Your task to perform on an android device: turn off airplane mode Image 0: 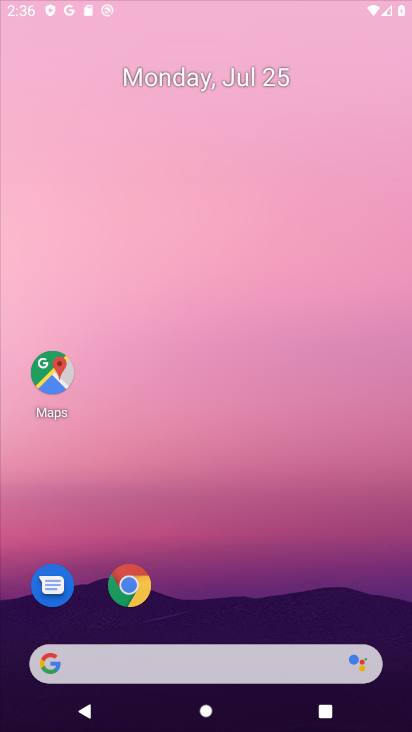
Step 0: press home button
Your task to perform on an android device: turn off airplane mode Image 1: 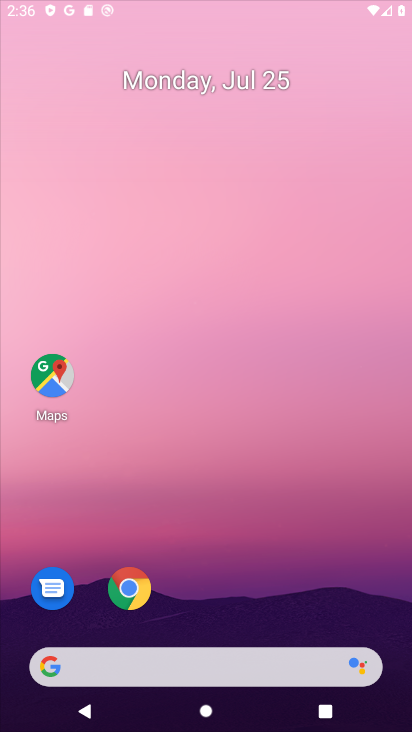
Step 1: task complete